Your task to perform on an android device: turn notification dots off Image 0: 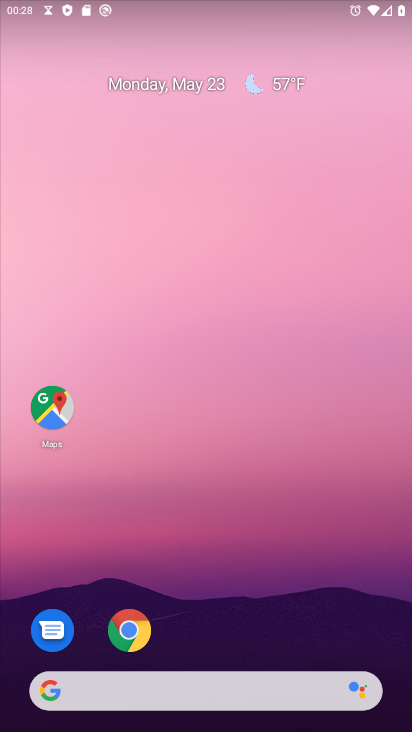
Step 0: drag from (214, 334) to (137, 0)
Your task to perform on an android device: turn notification dots off Image 1: 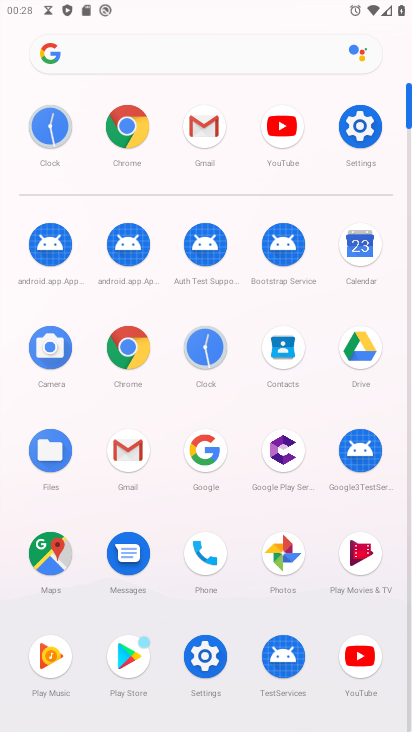
Step 1: click (373, 130)
Your task to perform on an android device: turn notification dots off Image 2: 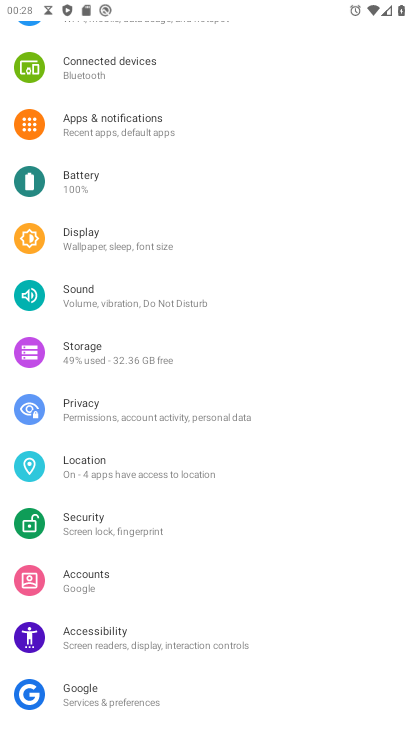
Step 2: click (176, 122)
Your task to perform on an android device: turn notification dots off Image 3: 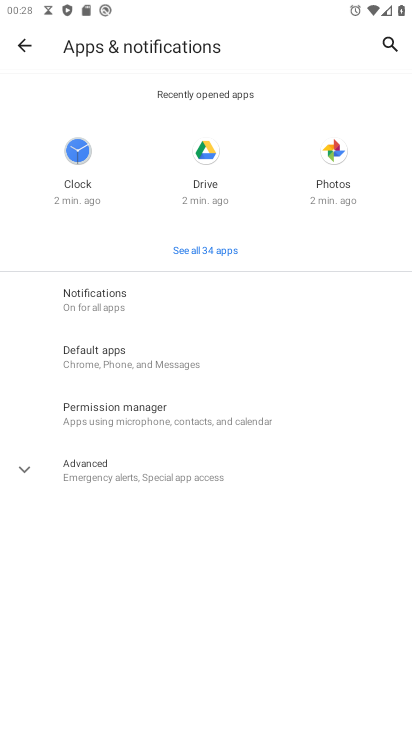
Step 3: click (181, 301)
Your task to perform on an android device: turn notification dots off Image 4: 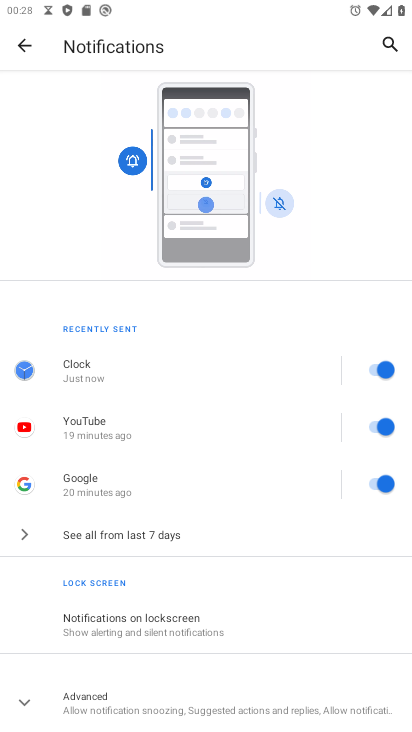
Step 4: click (147, 686)
Your task to perform on an android device: turn notification dots off Image 5: 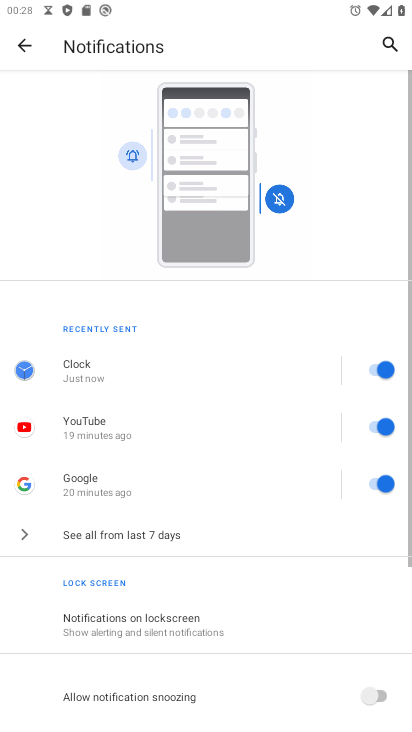
Step 5: drag from (234, 595) to (208, 181)
Your task to perform on an android device: turn notification dots off Image 6: 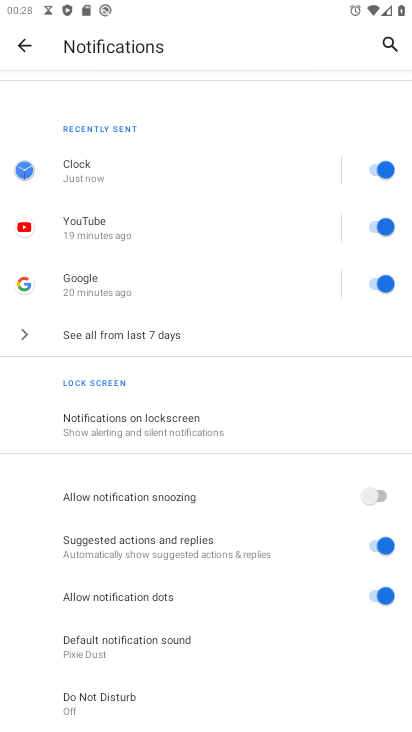
Step 6: click (385, 594)
Your task to perform on an android device: turn notification dots off Image 7: 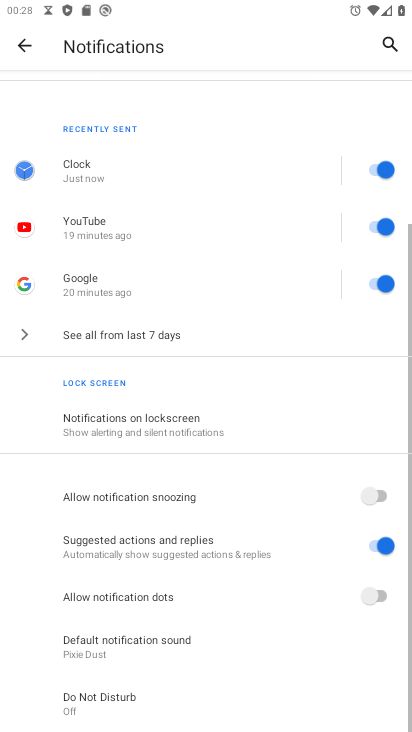
Step 7: task complete